Your task to perform on an android device: Open maps Image 0: 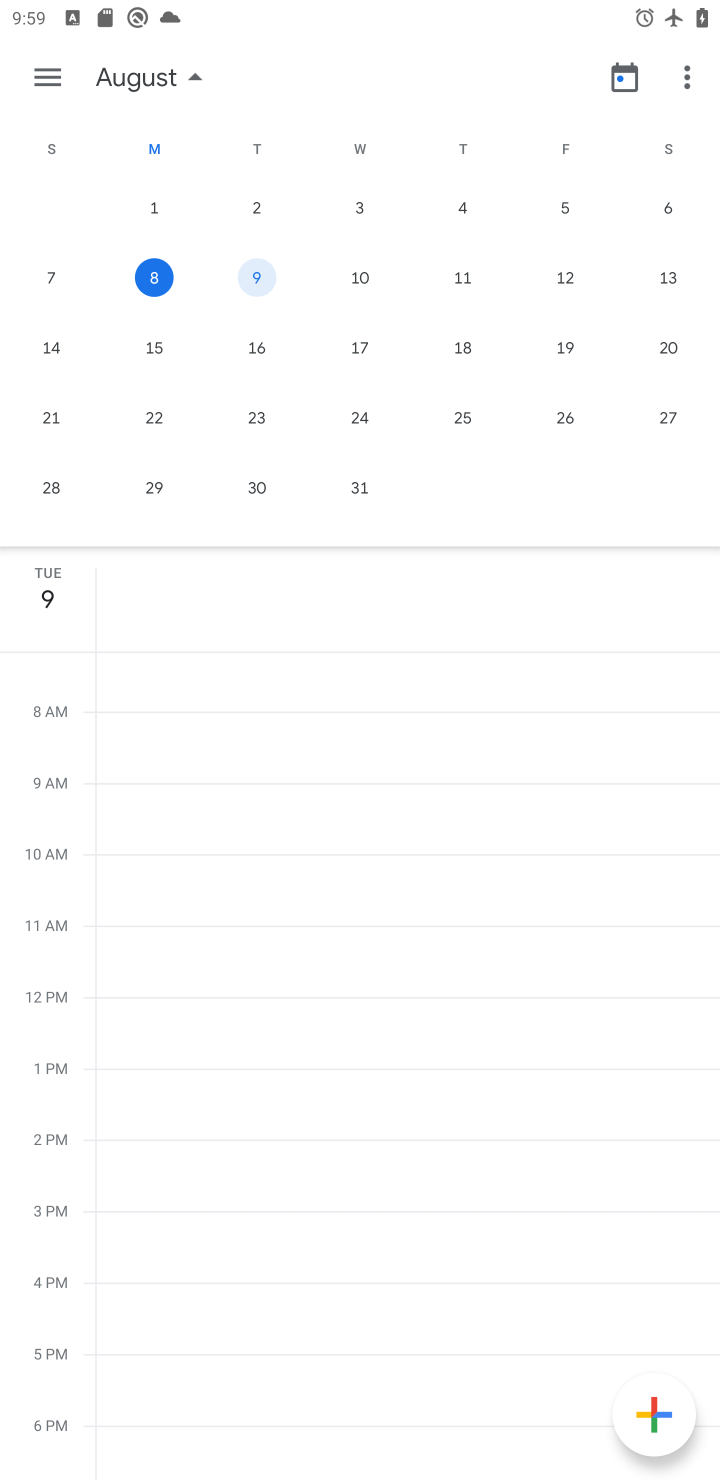
Step 0: press home button
Your task to perform on an android device: Open maps Image 1: 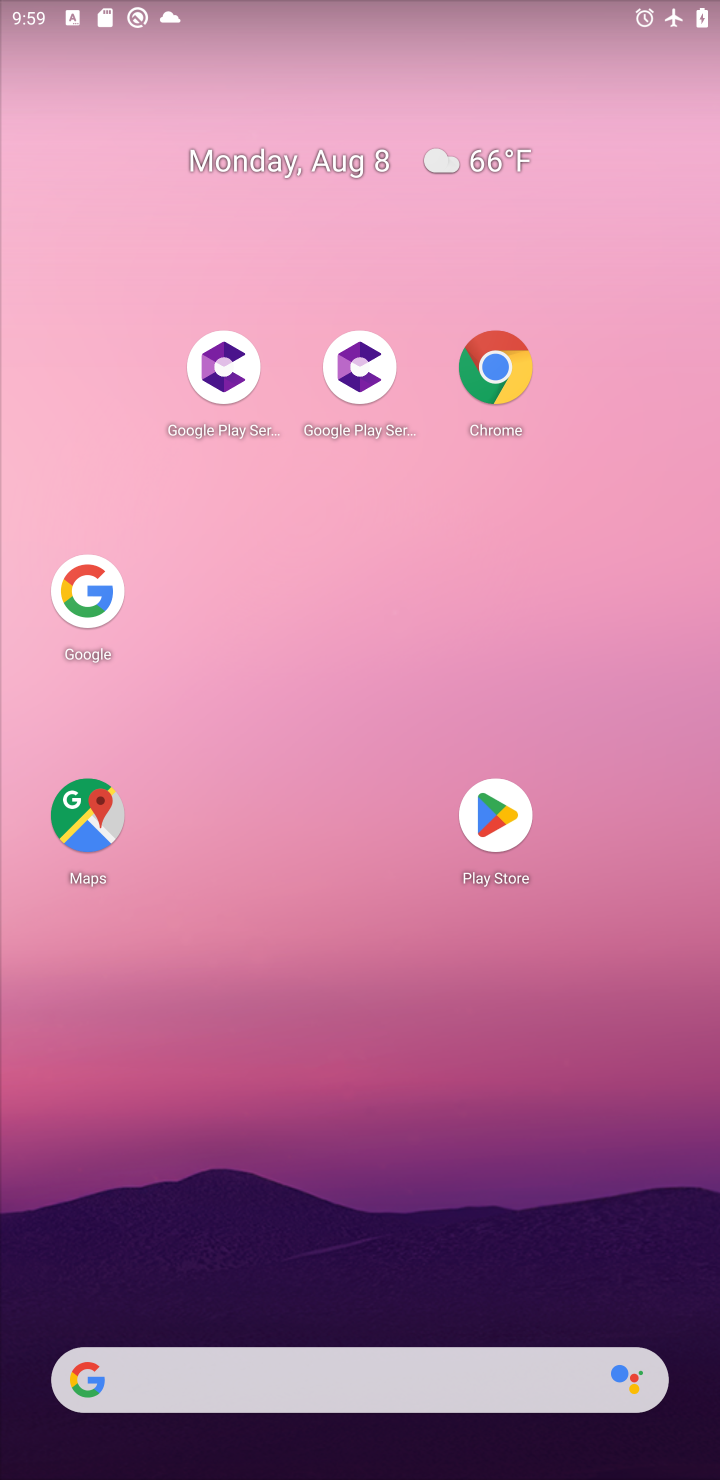
Step 1: click (87, 836)
Your task to perform on an android device: Open maps Image 2: 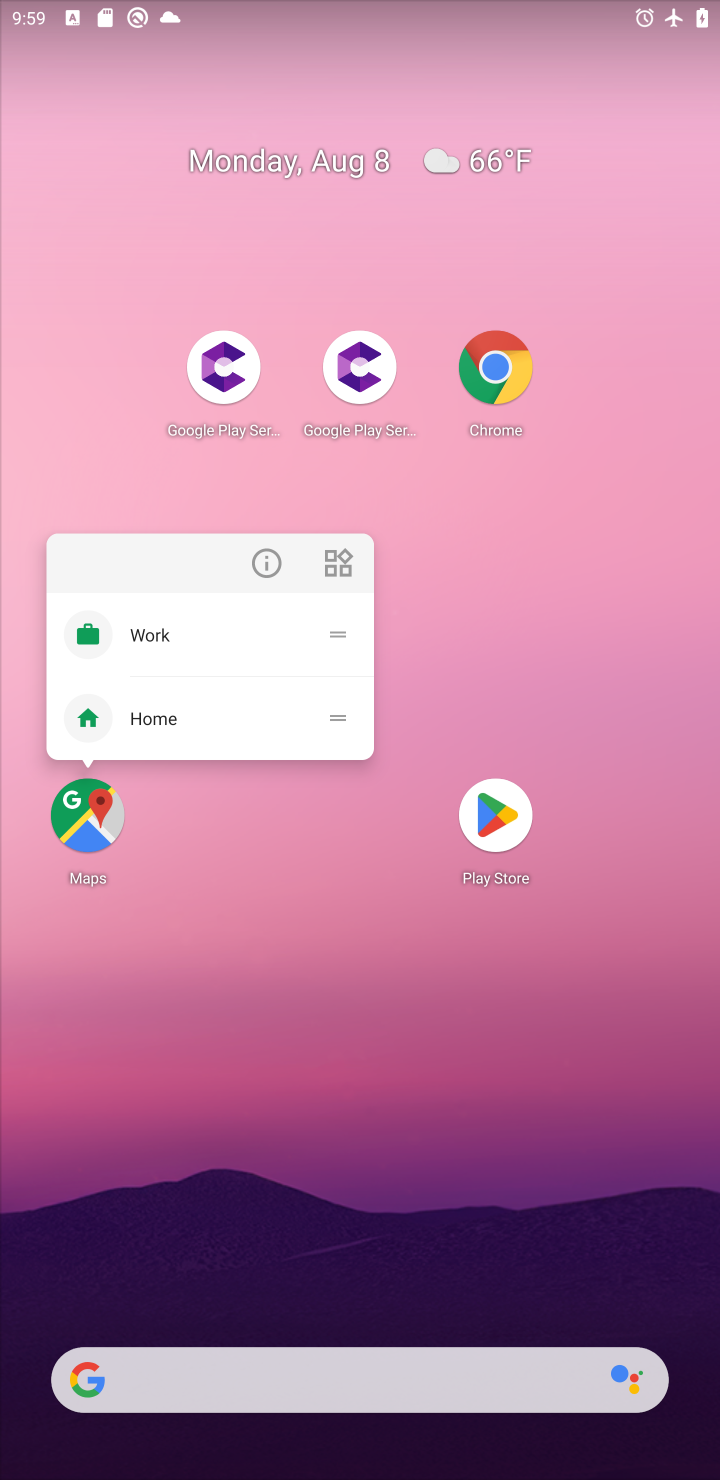
Step 2: click (94, 808)
Your task to perform on an android device: Open maps Image 3: 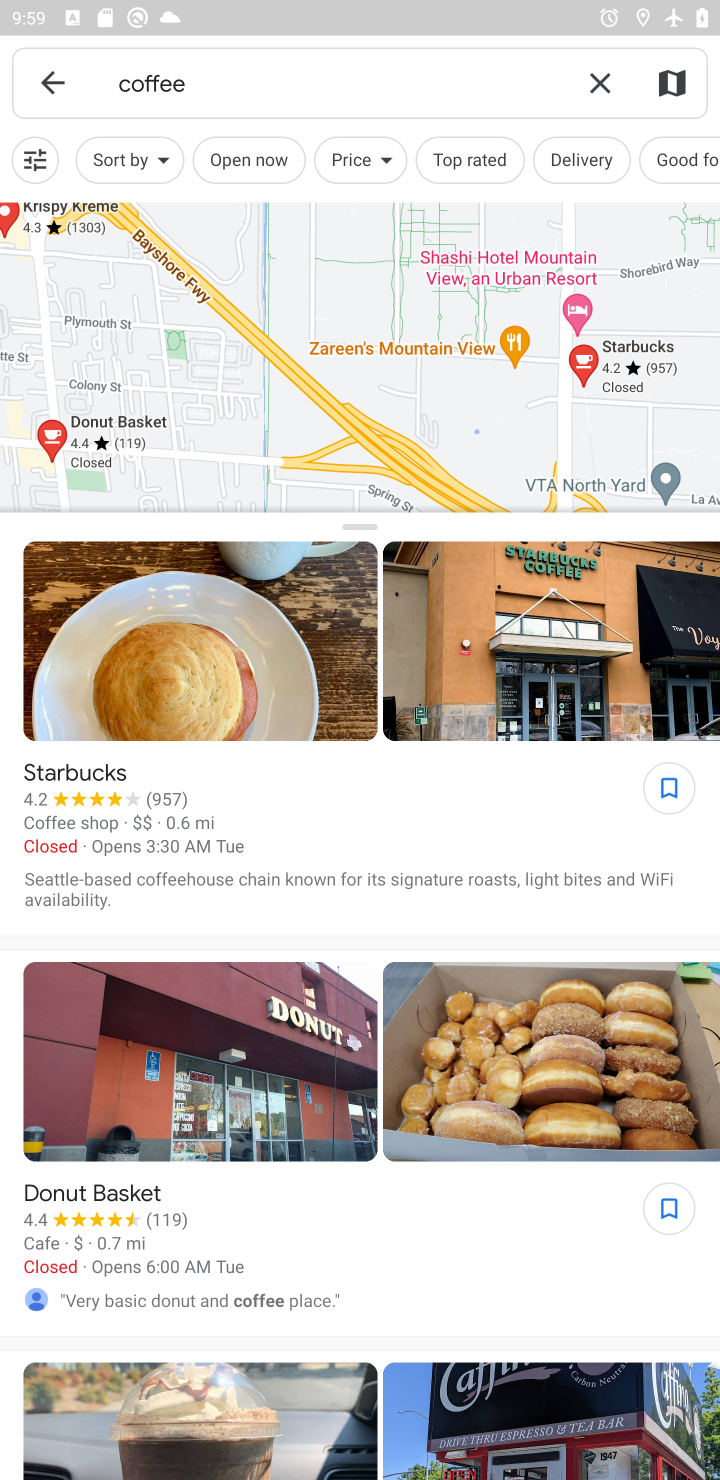
Step 3: task complete